Your task to perform on an android device: turn off translation in the chrome app Image 0: 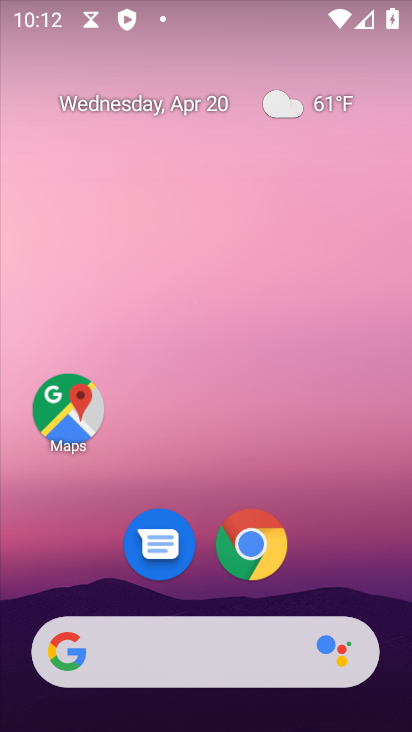
Step 0: drag from (179, 643) to (366, 51)
Your task to perform on an android device: turn off translation in the chrome app Image 1: 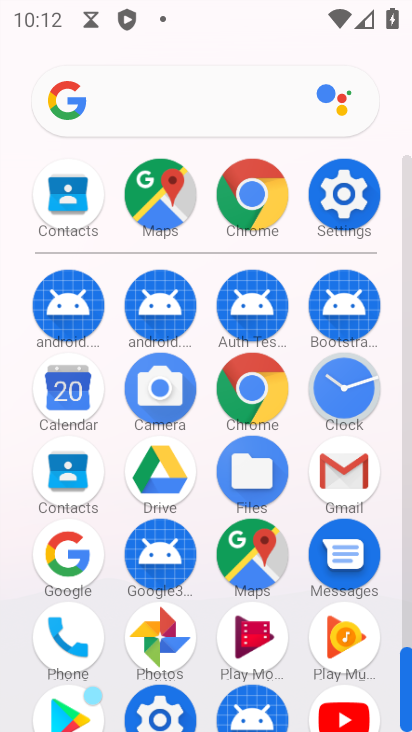
Step 1: click (259, 205)
Your task to perform on an android device: turn off translation in the chrome app Image 2: 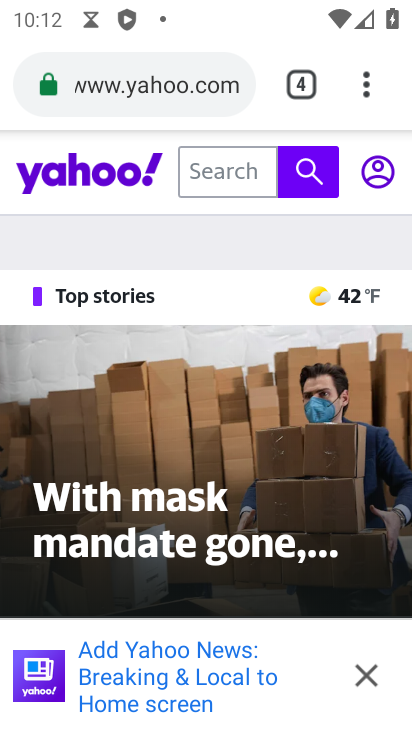
Step 2: click (358, 99)
Your task to perform on an android device: turn off translation in the chrome app Image 3: 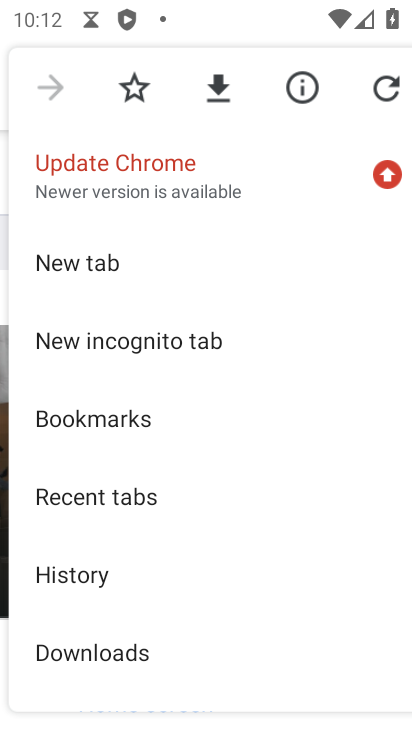
Step 3: drag from (140, 604) to (291, 322)
Your task to perform on an android device: turn off translation in the chrome app Image 4: 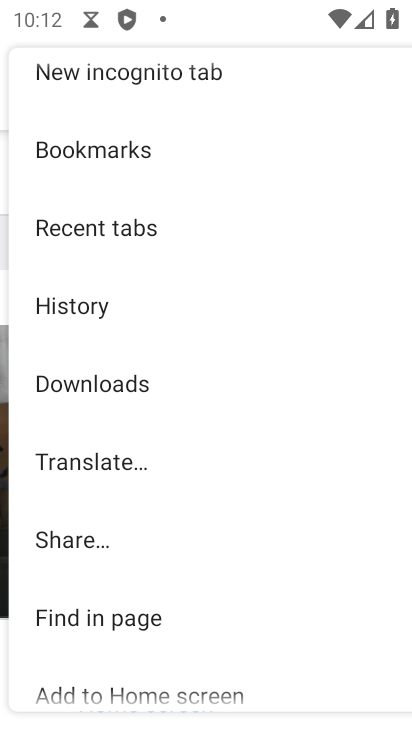
Step 4: drag from (185, 612) to (346, 227)
Your task to perform on an android device: turn off translation in the chrome app Image 5: 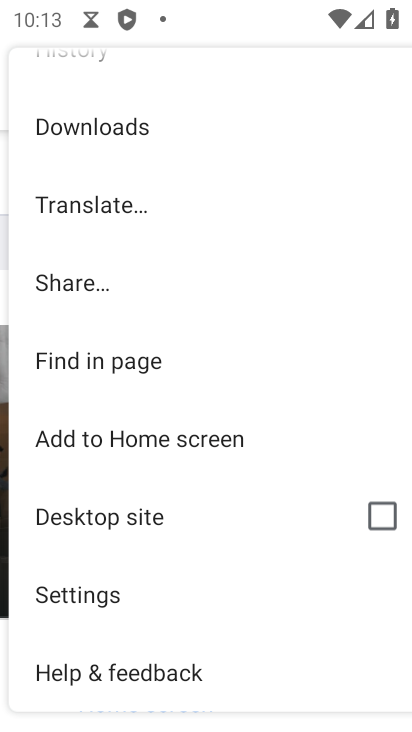
Step 5: click (101, 594)
Your task to perform on an android device: turn off translation in the chrome app Image 6: 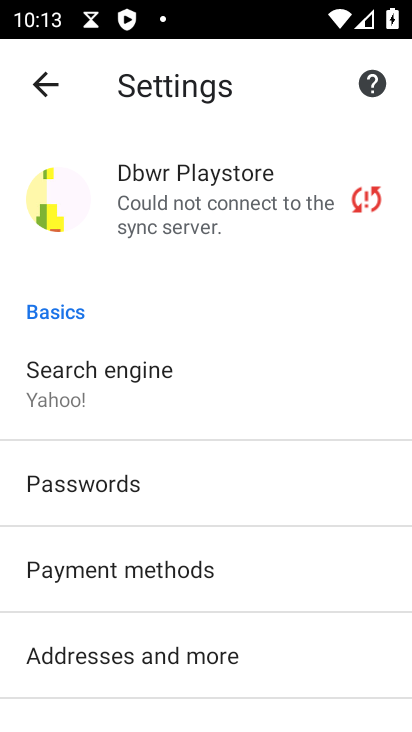
Step 6: drag from (231, 636) to (336, 189)
Your task to perform on an android device: turn off translation in the chrome app Image 7: 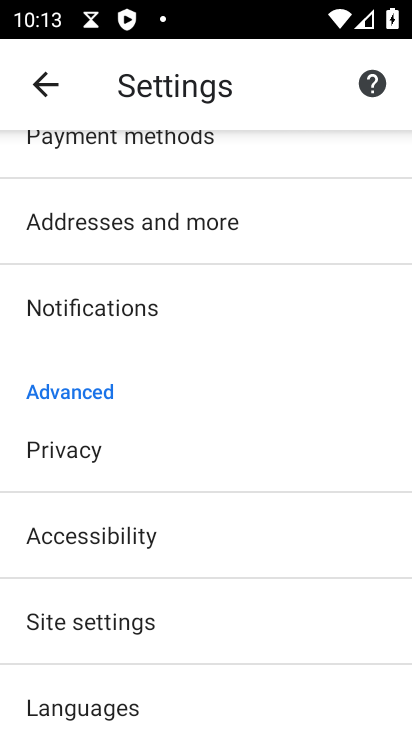
Step 7: drag from (199, 597) to (331, 187)
Your task to perform on an android device: turn off translation in the chrome app Image 8: 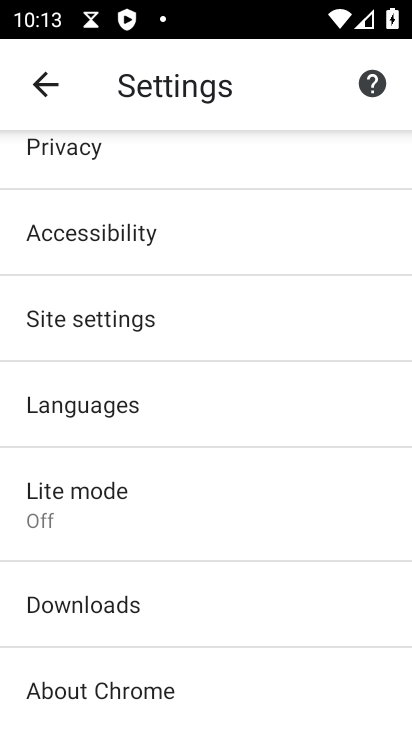
Step 8: click (94, 412)
Your task to perform on an android device: turn off translation in the chrome app Image 9: 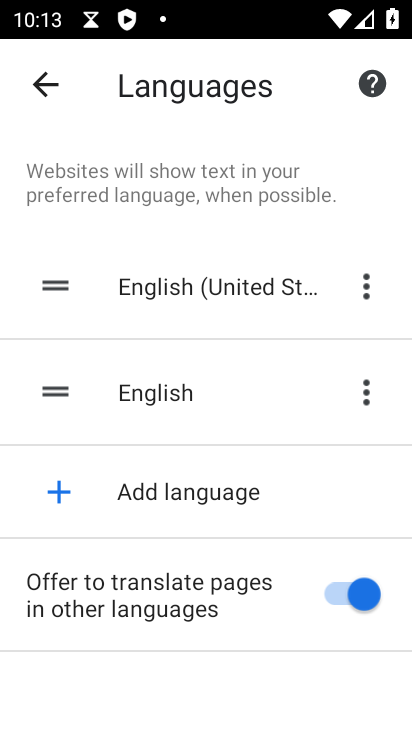
Step 9: click (341, 588)
Your task to perform on an android device: turn off translation in the chrome app Image 10: 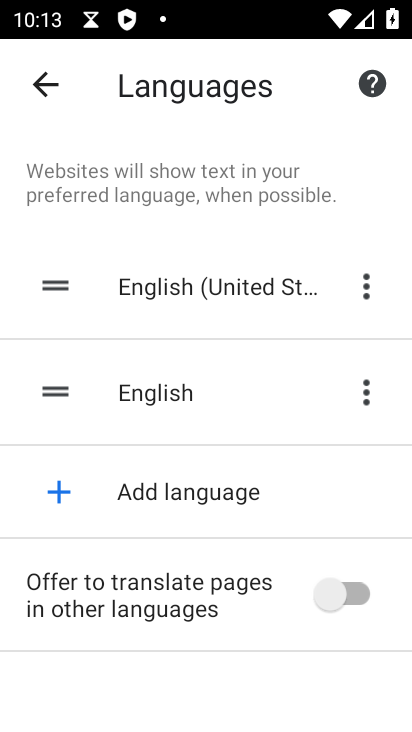
Step 10: task complete